Your task to perform on an android device: check storage Image 0: 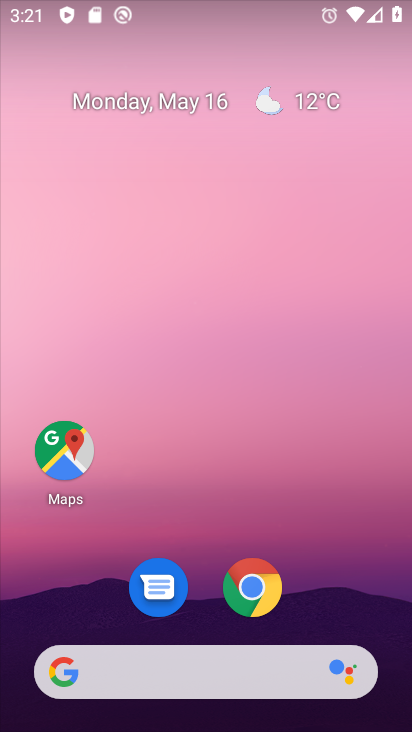
Step 0: drag from (387, 648) to (401, 240)
Your task to perform on an android device: check storage Image 1: 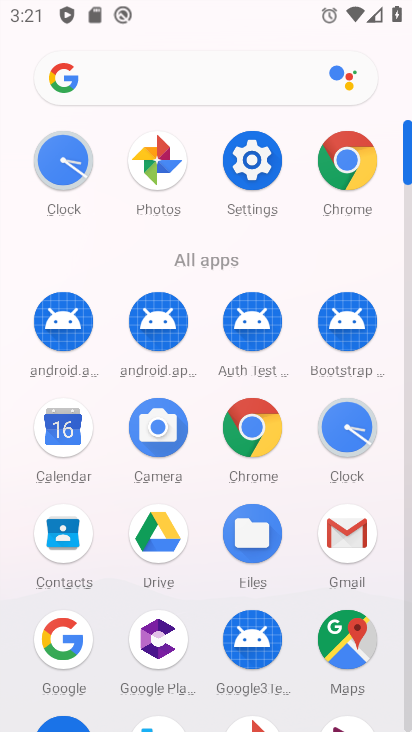
Step 1: click (248, 150)
Your task to perform on an android device: check storage Image 2: 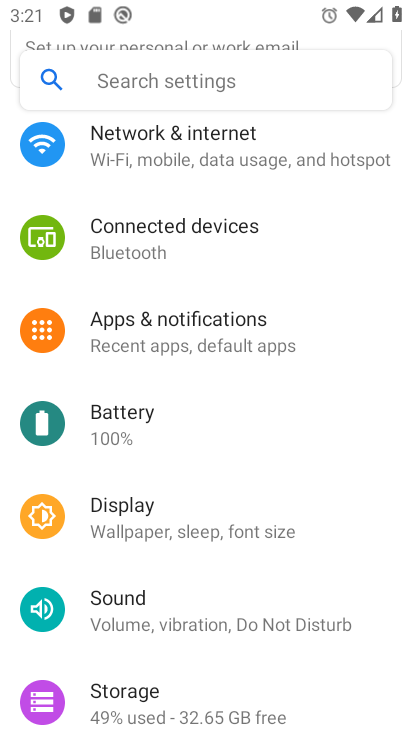
Step 2: click (130, 704)
Your task to perform on an android device: check storage Image 3: 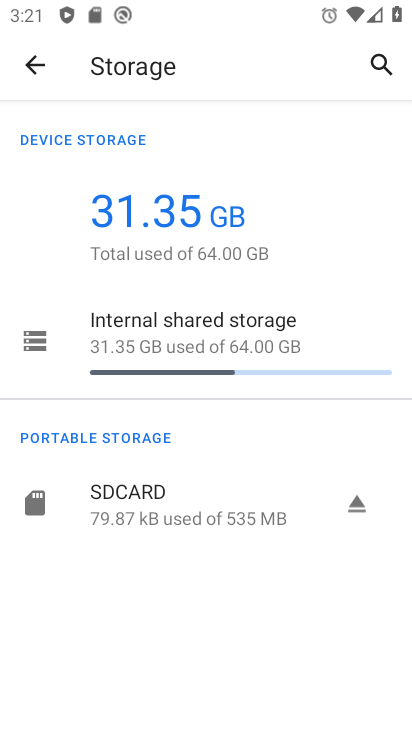
Step 3: task complete